Your task to perform on an android device: Go to eBay Image 0: 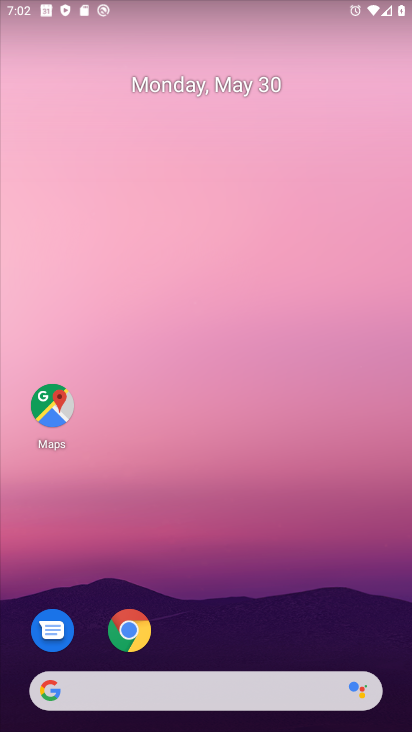
Step 0: drag from (377, 632) to (282, 31)
Your task to perform on an android device: Go to eBay Image 1: 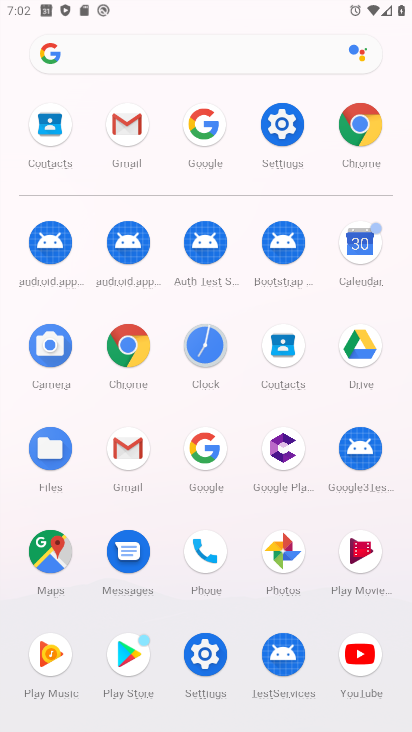
Step 1: click (218, 448)
Your task to perform on an android device: Go to eBay Image 2: 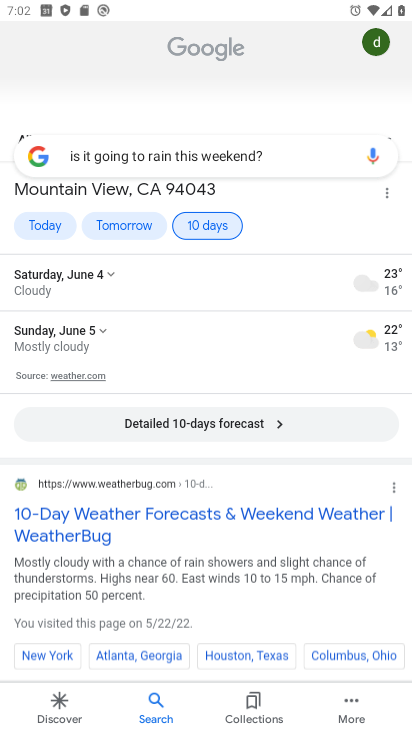
Step 2: press back button
Your task to perform on an android device: Go to eBay Image 3: 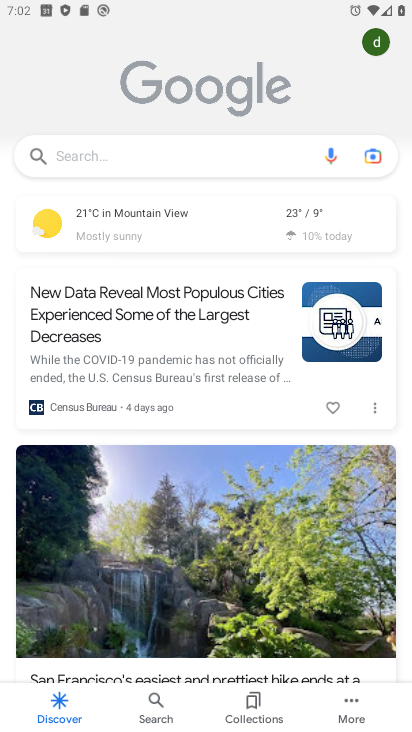
Step 3: click (94, 155)
Your task to perform on an android device: Go to eBay Image 4: 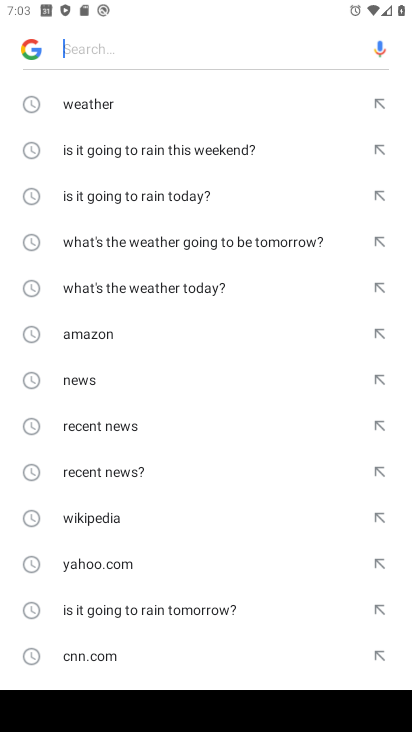
Step 4: drag from (113, 559) to (171, 195)
Your task to perform on an android device: Go to eBay Image 5: 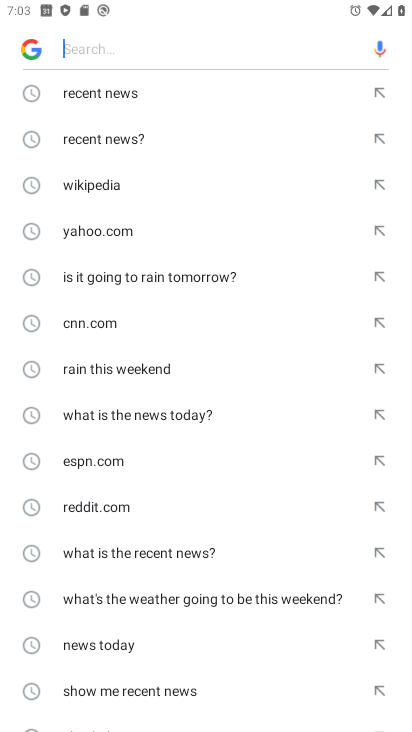
Step 5: drag from (127, 646) to (166, 188)
Your task to perform on an android device: Go to eBay Image 6: 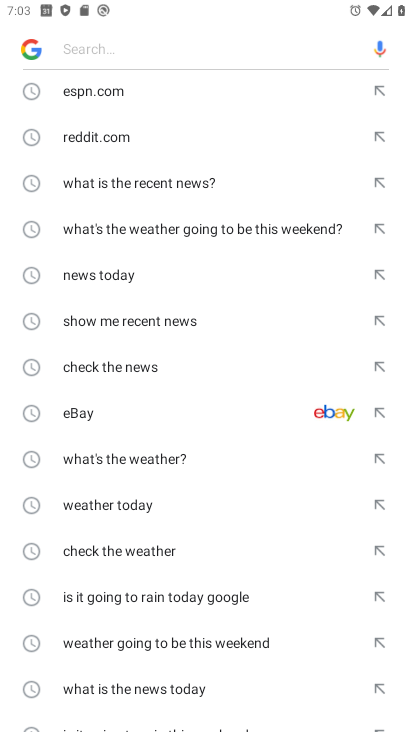
Step 6: click (193, 424)
Your task to perform on an android device: Go to eBay Image 7: 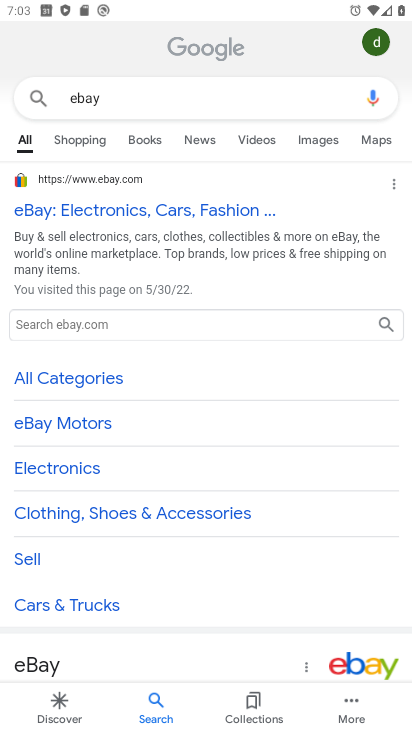
Step 7: task complete